Your task to perform on an android device: open app "Messenger Lite" (install if not already installed) Image 0: 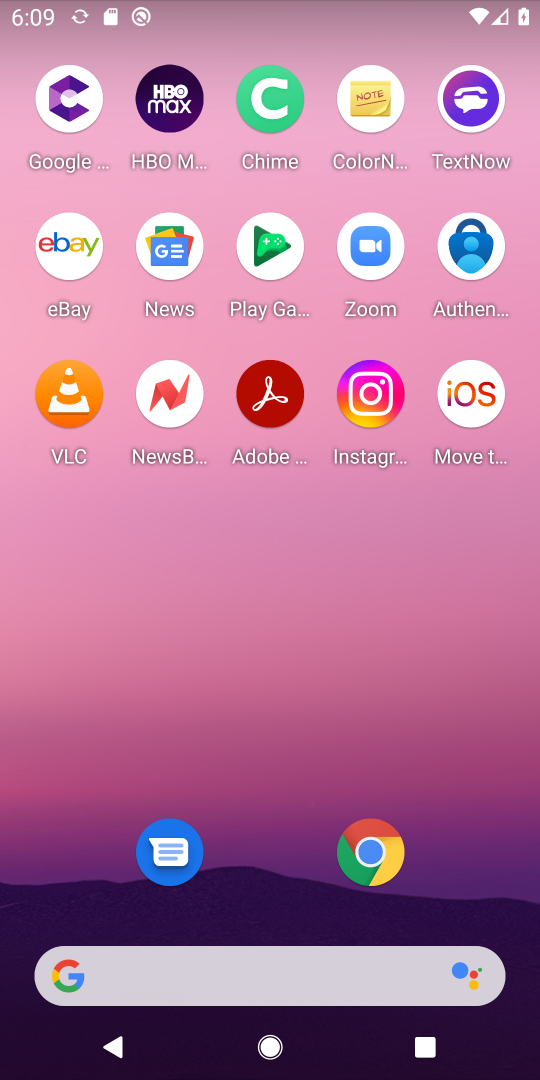
Step 0: drag from (285, 994) to (489, 163)
Your task to perform on an android device: open app "Messenger Lite" (install if not already installed) Image 1: 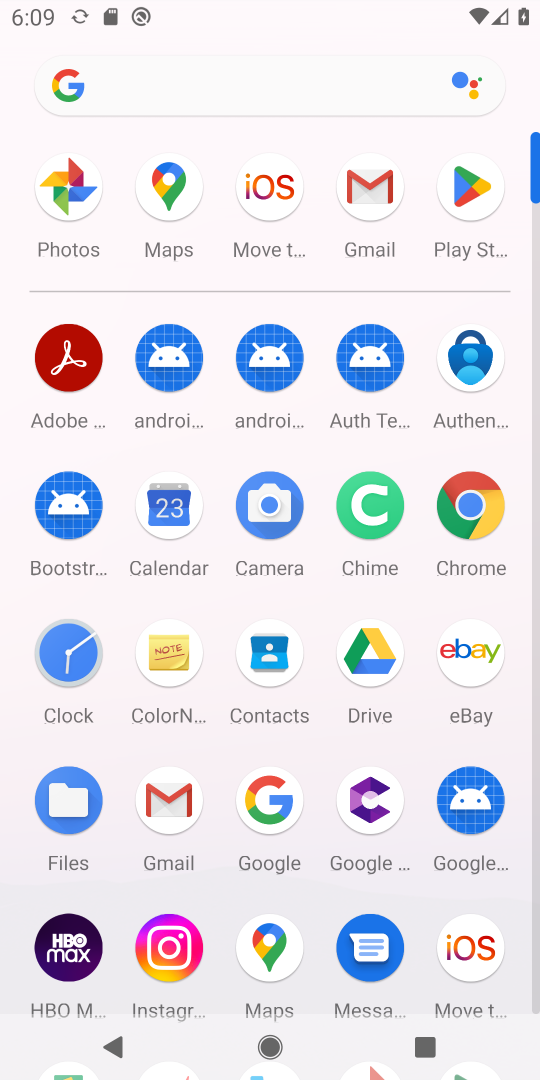
Step 1: click (468, 199)
Your task to perform on an android device: open app "Messenger Lite" (install if not already installed) Image 2: 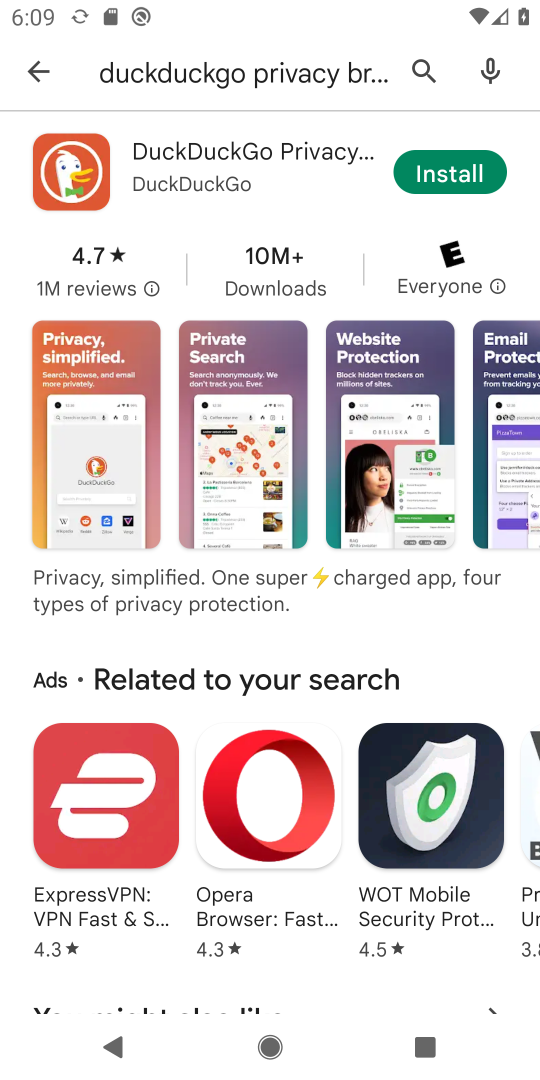
Step 2: press back button
Your task to perform on an android device: open app "Messenger Lite" (install if not already installed) Image 3: 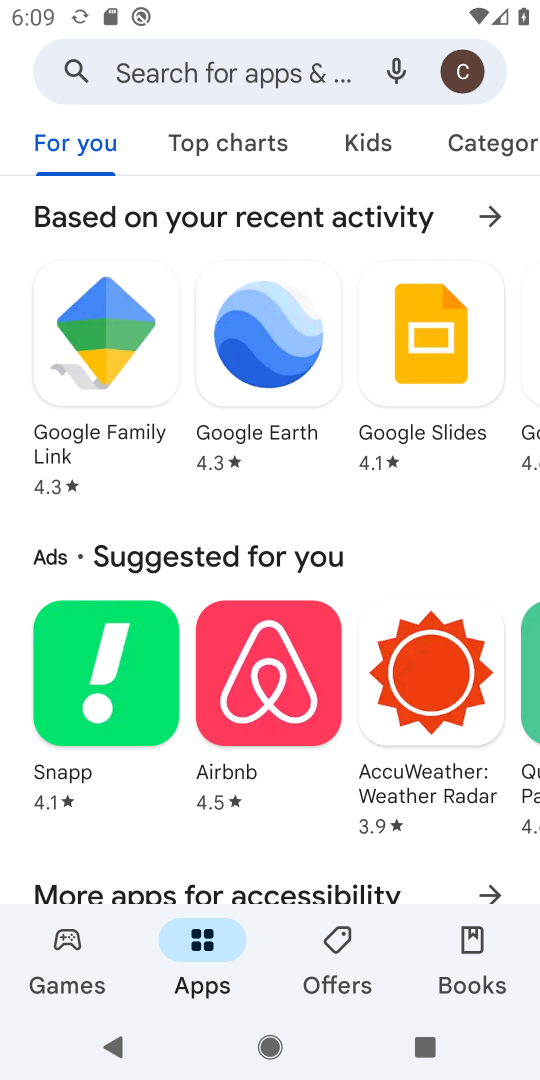
Step 3: click (212, 67)
Your task to perform on an android device: open app "Messenger Lite" (install if not already installed) Image 4: 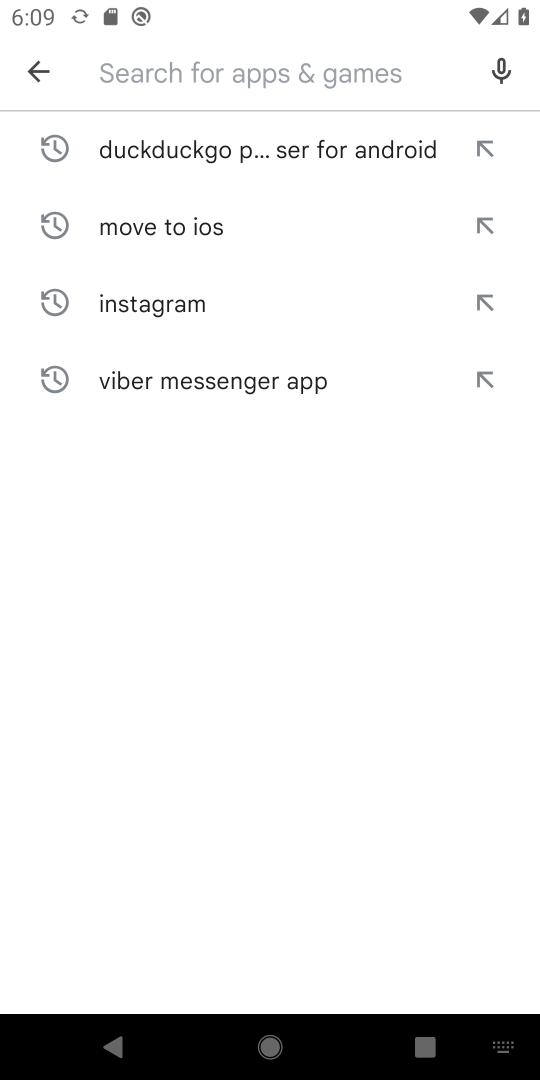
Step 4: type "Messenger Lite"
Your task to perform on an android device: open app "Messenger Lite" (install if not already installed) Image 5: 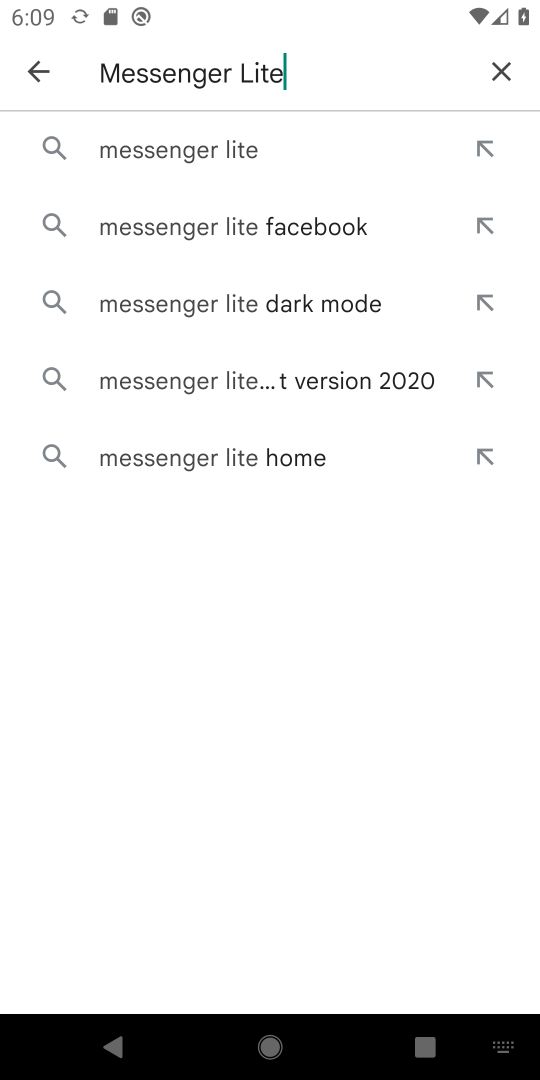
Step 5: click (207, 152)
Your task to perform on an android device: open app "Messenger Lite" (install if not already installed) Image 6: 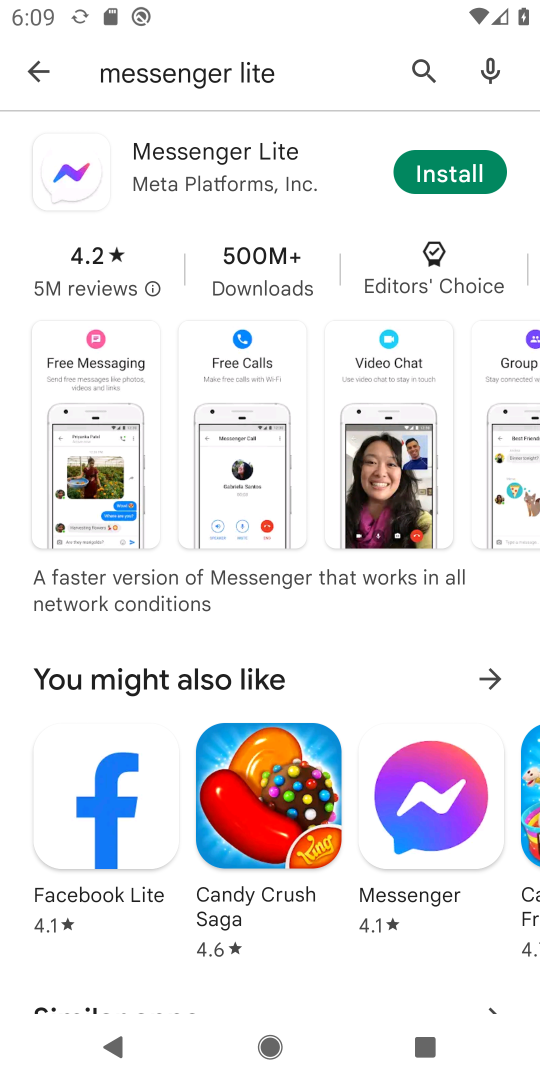
Step 6: click (436, 172)
Your task to perform on an android device: open app "Messenger Lite" (install if not already installed) Image 7: 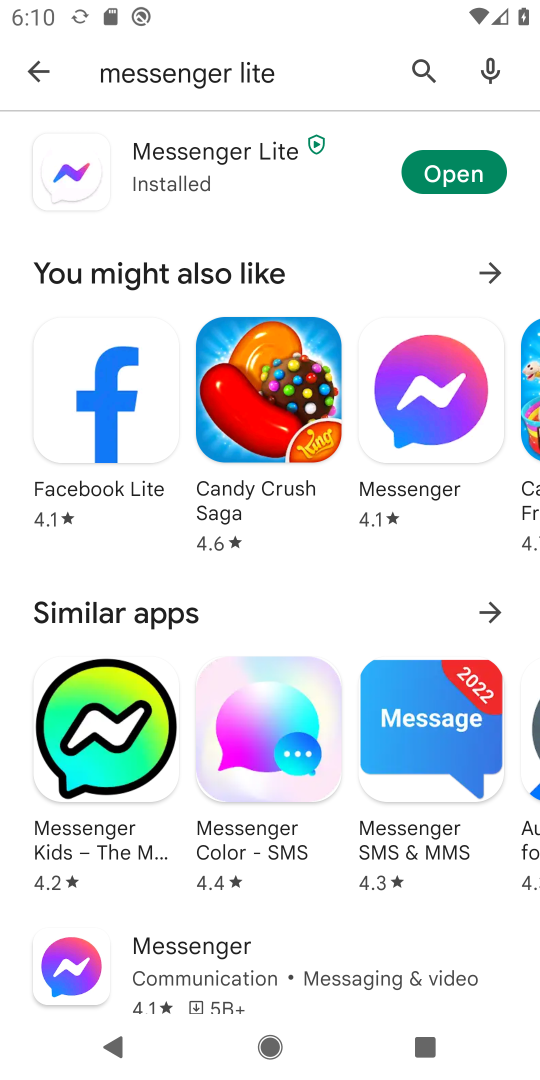
Step 7: click (454, 192)
Your task to perform on an android device: open app "Messenger Lite" (install if not already installed) Image 8: 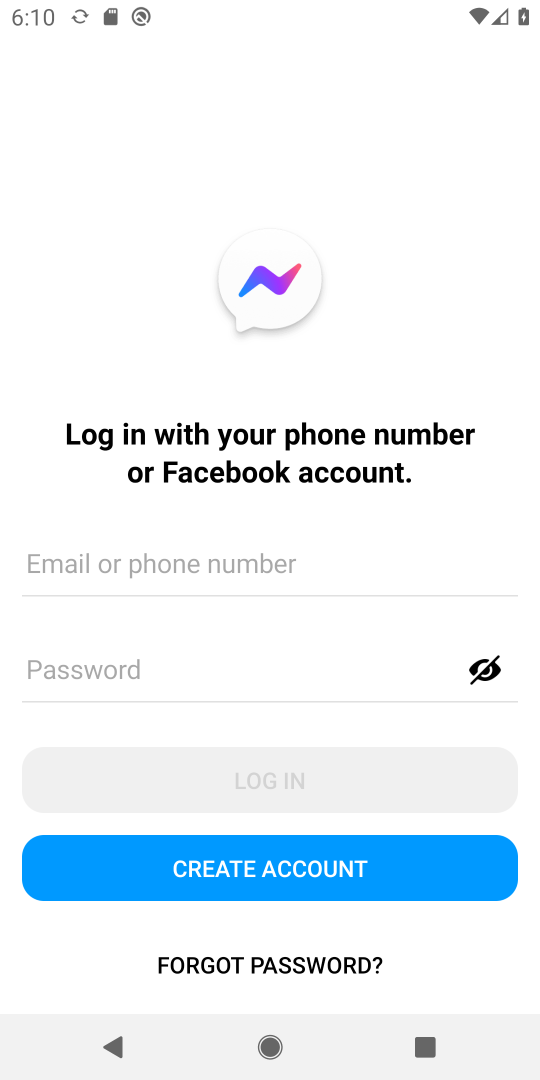
Step 8: task complete